Your task to perform on an android device: Open Youtube and go to "Your channel" Image 0: 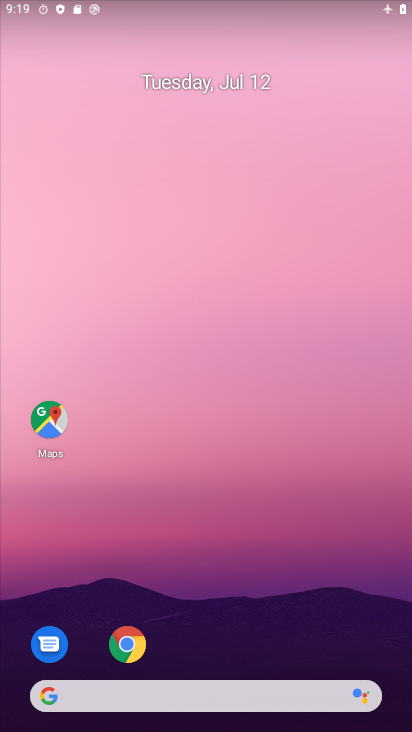
Step 0: drag from (208, 646) to (208, 314)
Your task to perform on an android device: Open Youtube and go to "Your channel" Image 1: 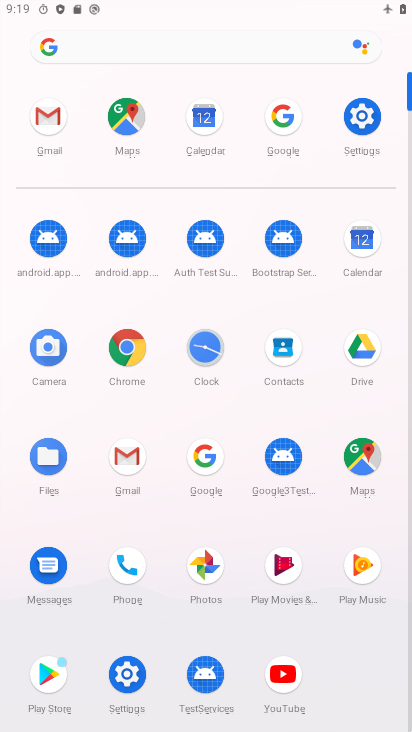
Step 1: click (290, 689)
Your task to perform on an android device: Open Youtube and go to "Your channel" Image 2: 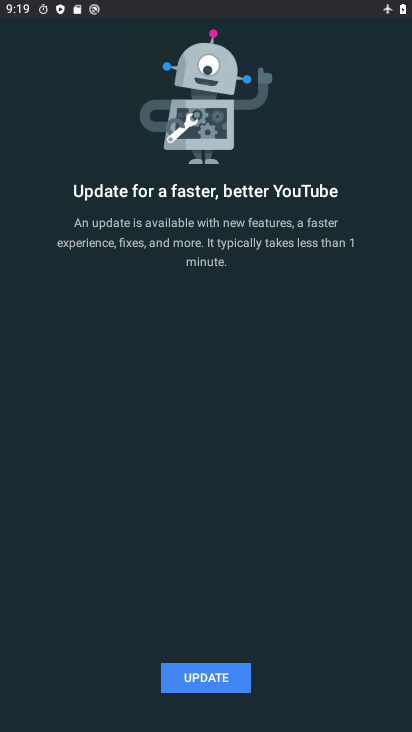
Step 2: click (183, 687)
Your task to perform on an android device: Open Youtube and go to "Your channel" Image 3: 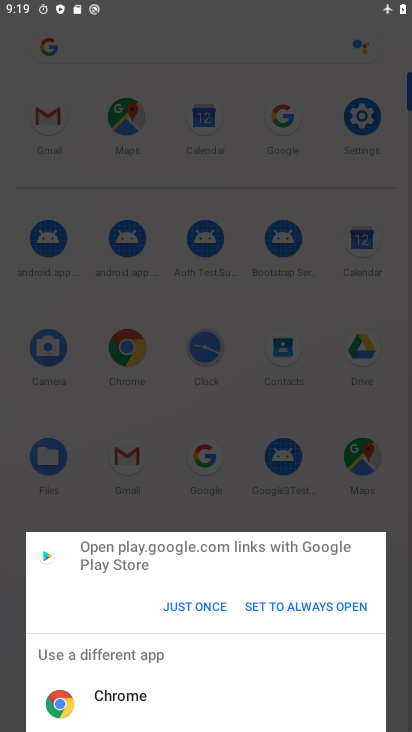
Step 3: click (201, 607)
Your task to perform on an android device: Open Youtube and go to "Your channel" Image 4: 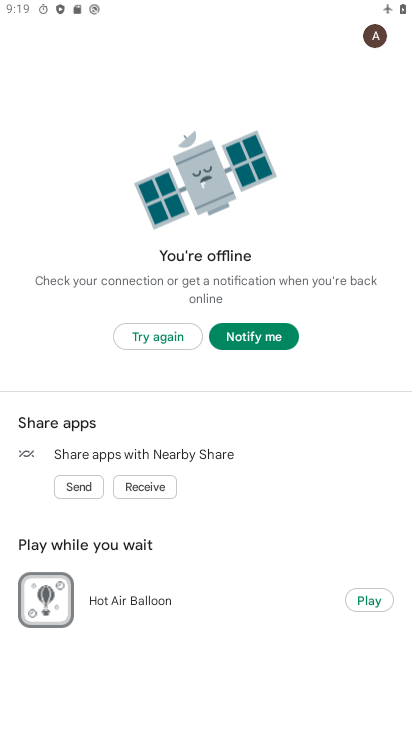
Step 4: task complete